Your task to perform on an android device: What's on my calendar tomorrow? Image 0: 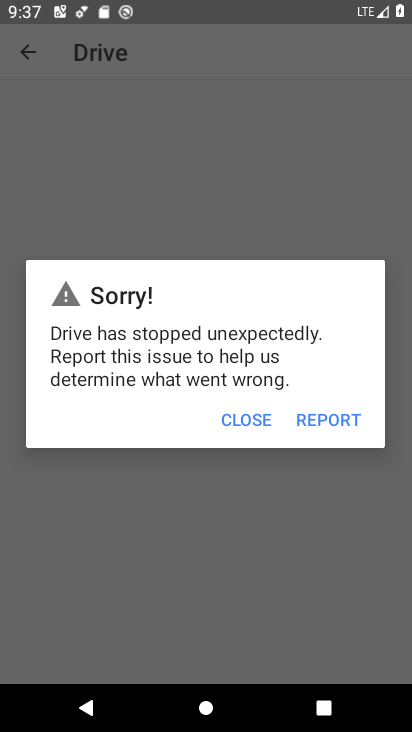
Step 0: press home button
Your task to perform on an android device: What's on my calendar tomorrow? Image 1: 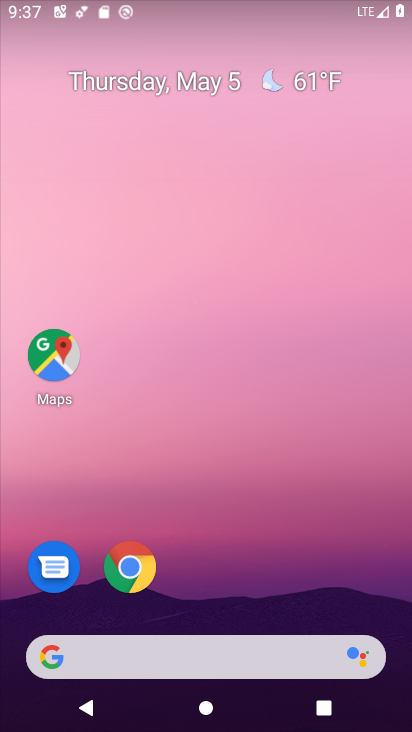
Step 1: drag from (269, 597) to (310, 51)
Your task to perform on an android device: What's on my calendar tomorrow? Image 2: 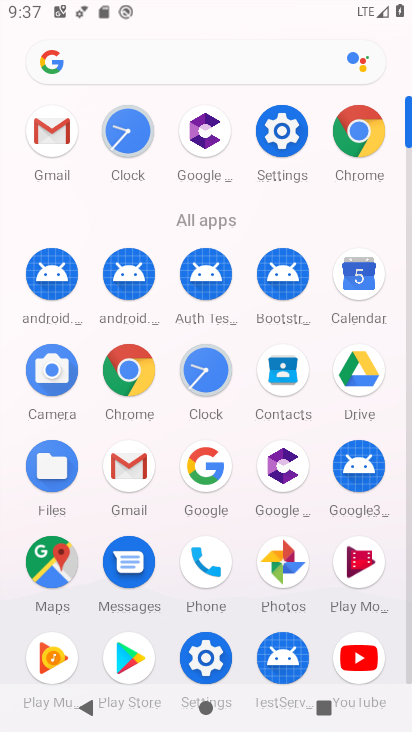
Step 2: click (354, 282)
Your task to perform on an android device: What's on my calendar tomorrow? Image 3: 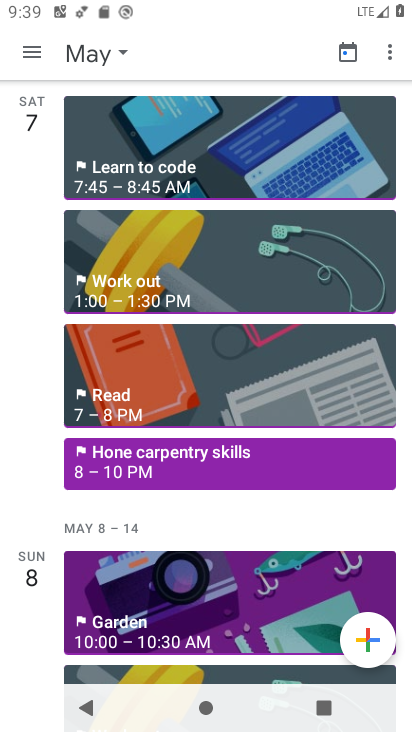
Step 3: click (34, 46)
Your task to perform on an android device: What's on my calendar tomorrow? Image 4: 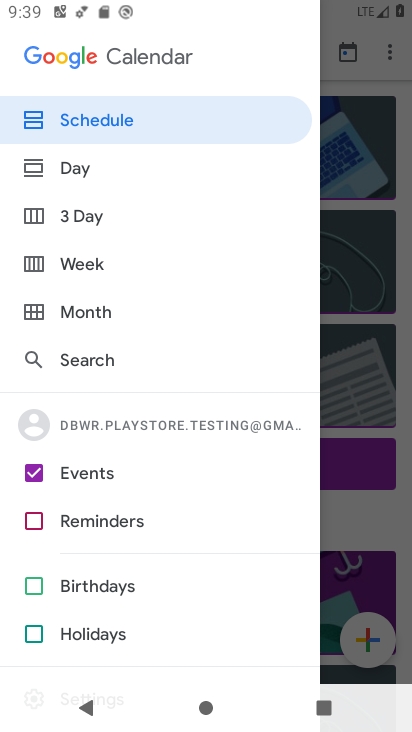
Step 4: click (80, 174)
Your task to perform on an android device: What's on my calendar tomorrow? Image 5: 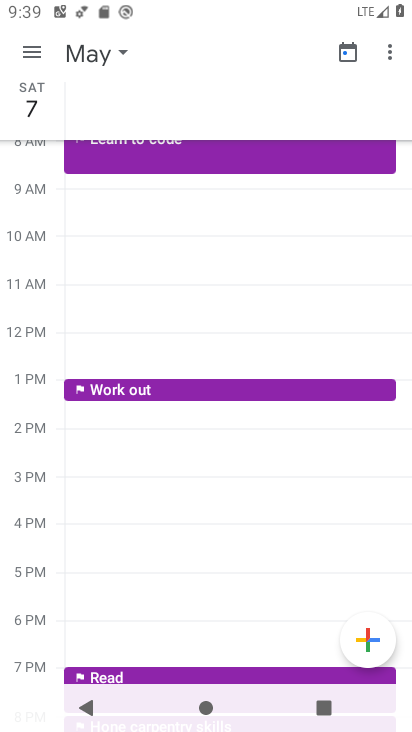
Step 5: click (39, 52)
Your task to perform on an android device: What's on my calendar tomorrow? Image 6: 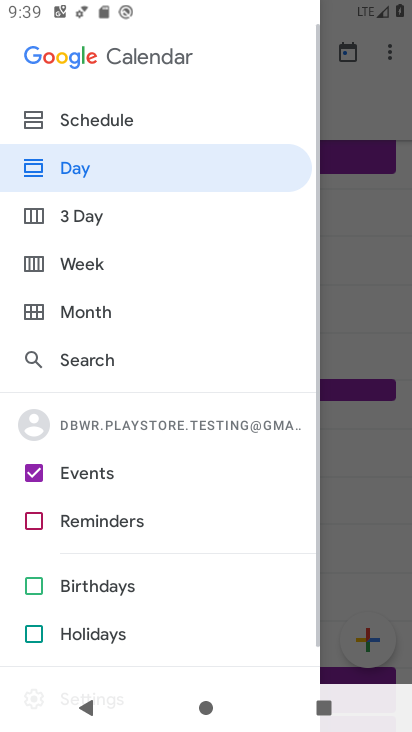
Step 6: click (41, 526)
Your task to perform on an android device: What's on my calendar tomorrow? Image 7: 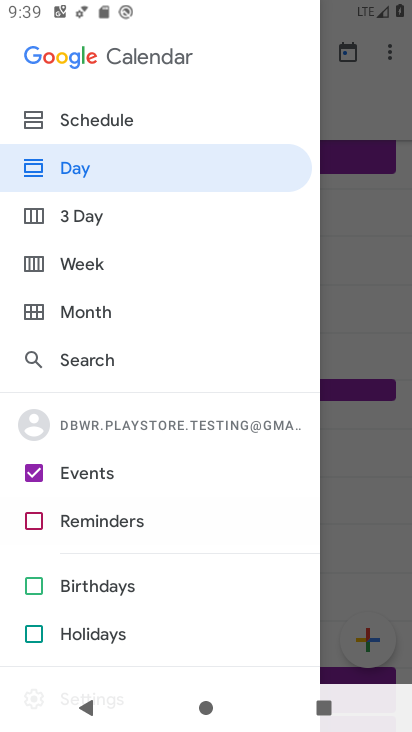
Step 7: click (39, 591)
Your task to perform on an android device: What's on my calendar tomorrow? Image 8: 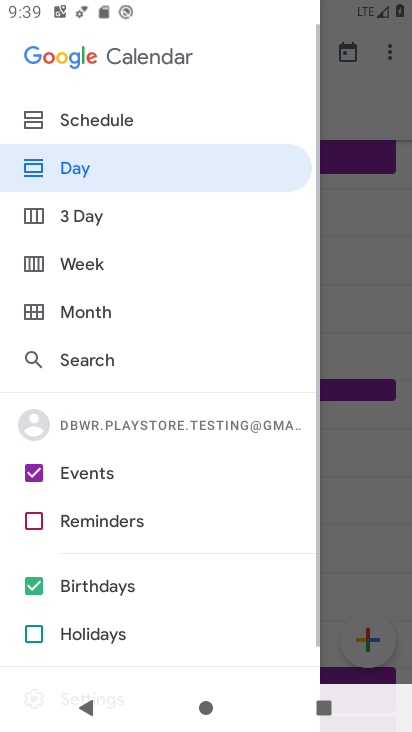
Step 8: click (29, 635)
Your task to perform on an android device: What's on my calendar tomorrow? Image 9: 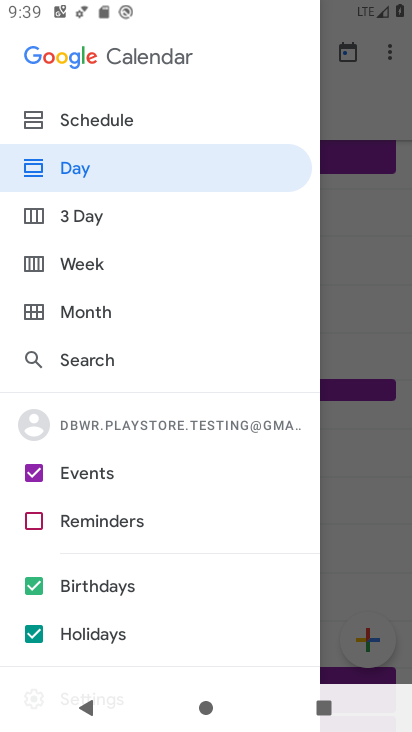
Step 9: click (339, 233)
Your task to perform on an android device: What's on my calendar tomorrow? Image 10: 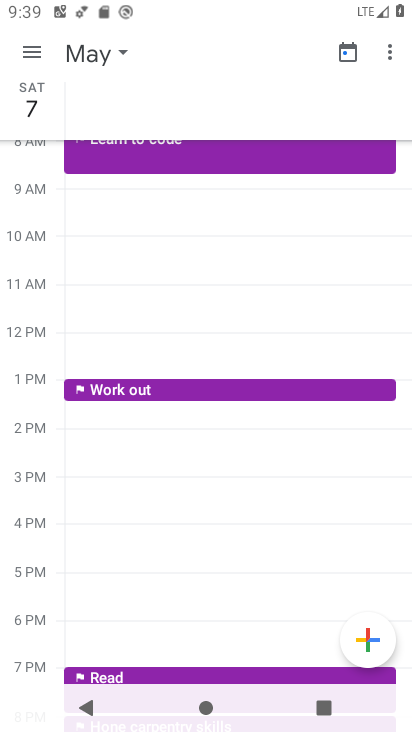
Step 10: task complete